Your task to perform on an android device: Open Amazon Image 0: 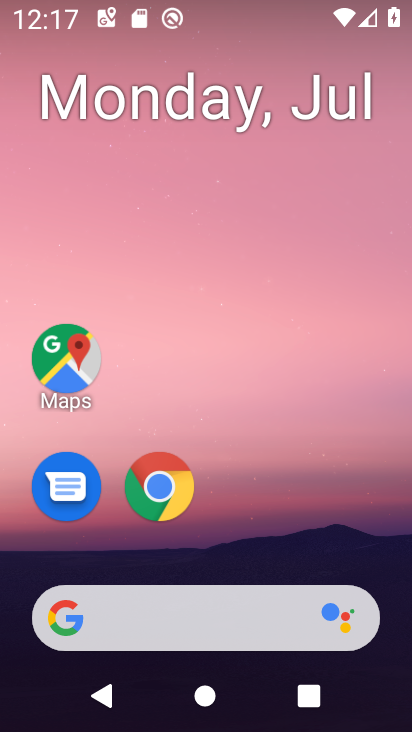
Step 0: press home button
Your task to perform on an android device: Open Amazon Image 1: 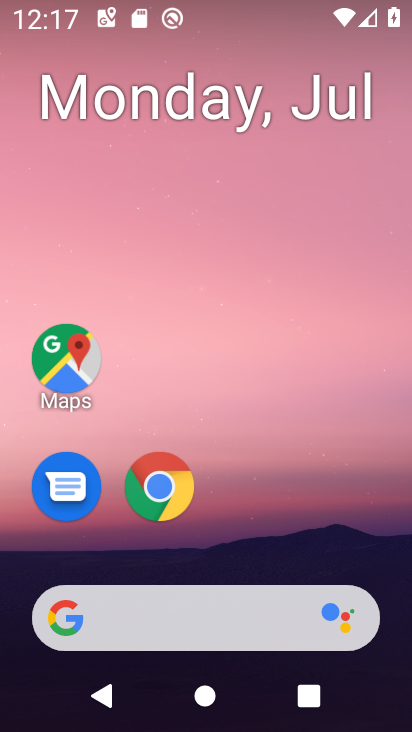
Step 1: drag from (344, 532) to (348, 74)
Your task to perform on an android device: Open Amazon Image 2: 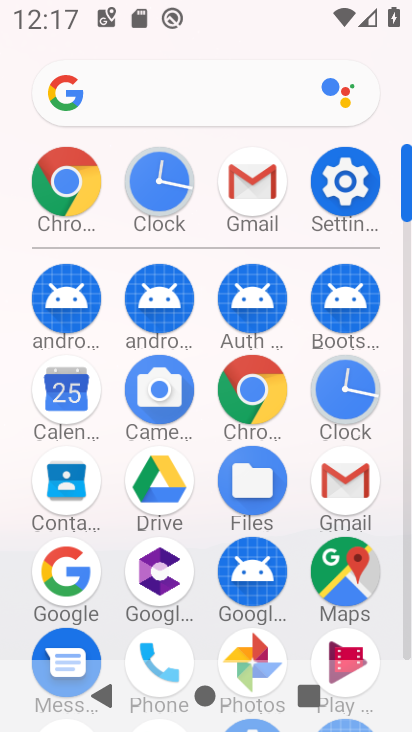
Step 2: click (262, 389)
Your task to perform on an android device: Open Amazon Image 3: 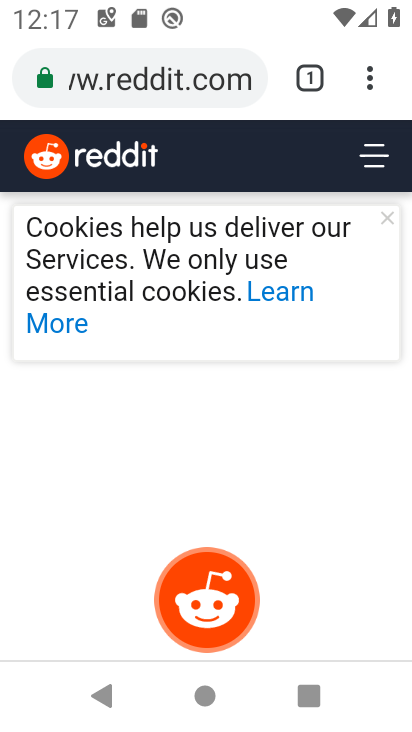
Step 3: click (209, 91)
Your task to perform on an android device: Open Amazon Image 4: 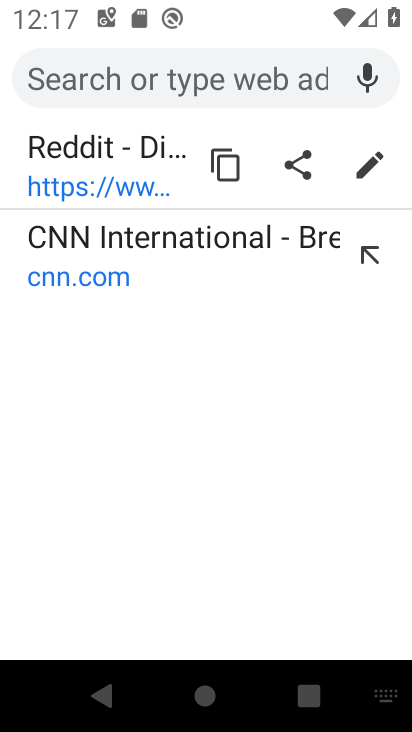
Step 4: type "amazon"
Your task to perform on an android device: Open Amazon Image 5: 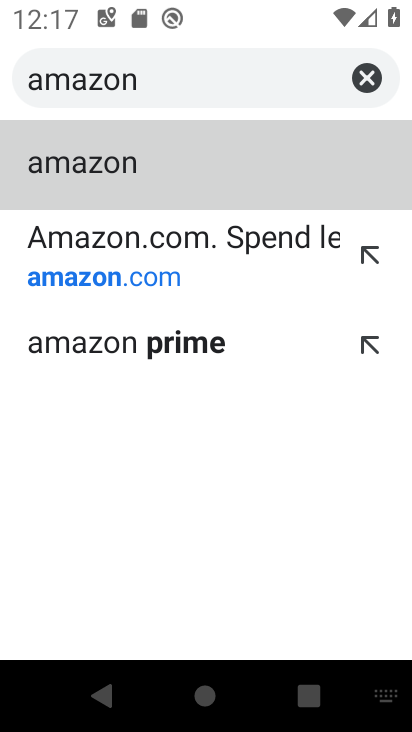
Step 5: click (202, 160)
Your task to perform on an android device: Open Amazon Image 6: 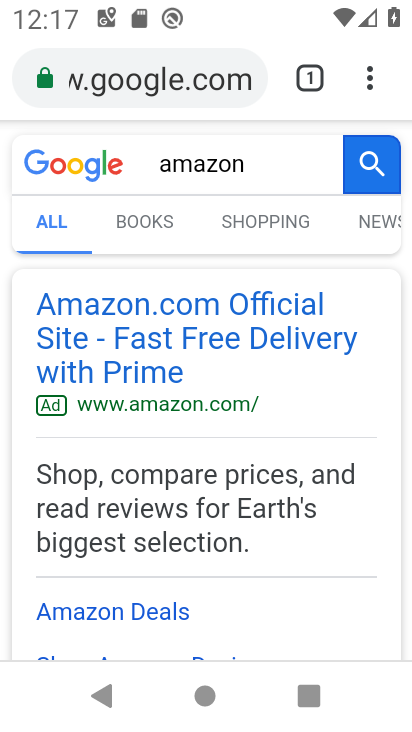
Step 6: task complete